Your task to perform on an android device: Go to eBay Image 0: 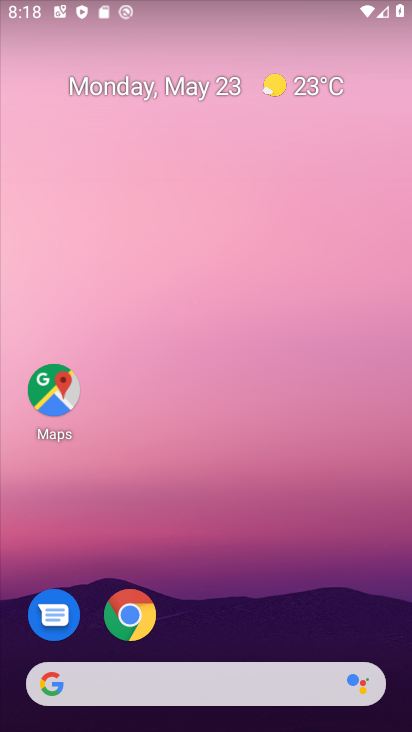
Step 0: click (132, 615)
Your task to perform on an android device: Go to eBay Image 1: 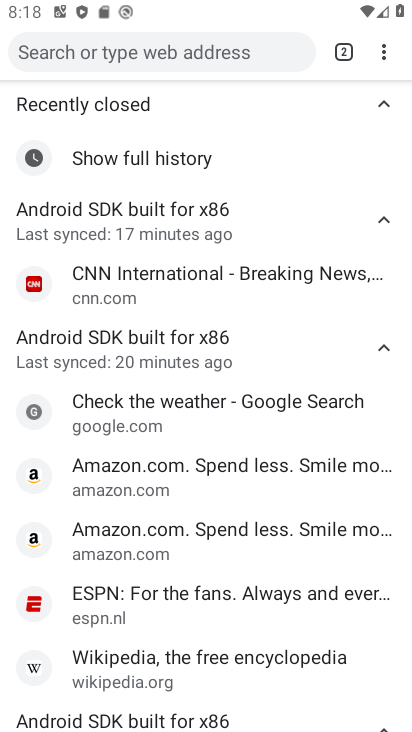
Step 1: click (222, 53)
Your task to perform on an android device: Go to eBay Image 2: 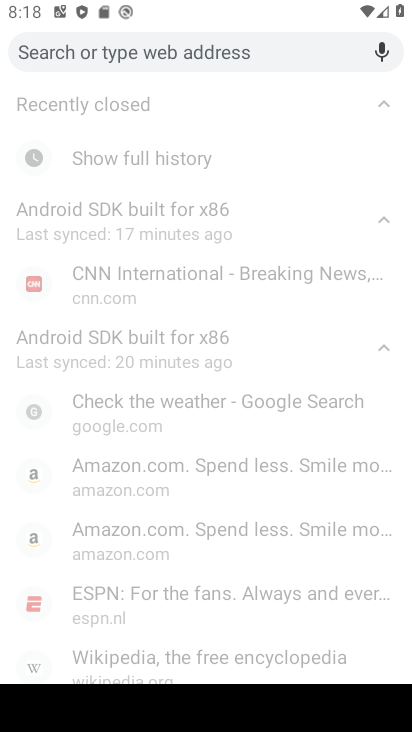
Step 2: type "eBay"
Your task to perform on an android device: Go to eBay Image 3: 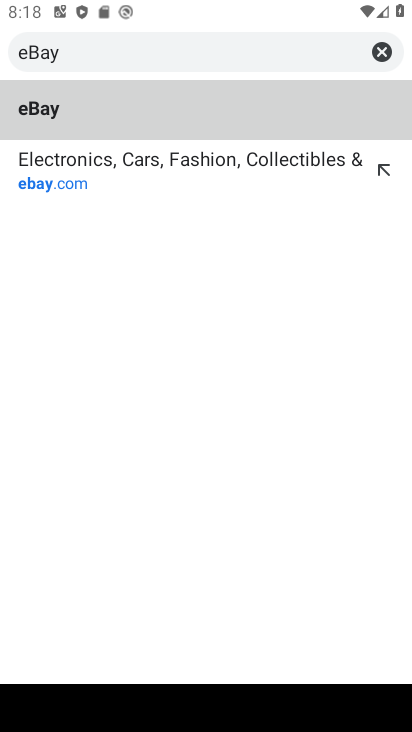
Step 3: click (49, 118)
Your task to perform on an android device: Go to eBay Image 4: 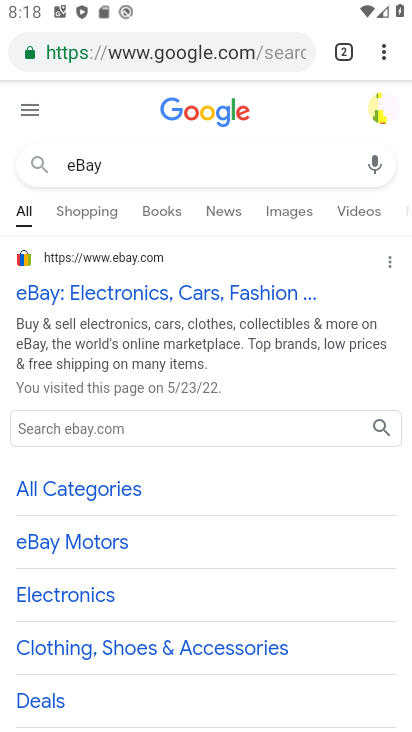
Step 4: click (140, 297)
Your task to perform on an android device: Go to eBay Image 5: 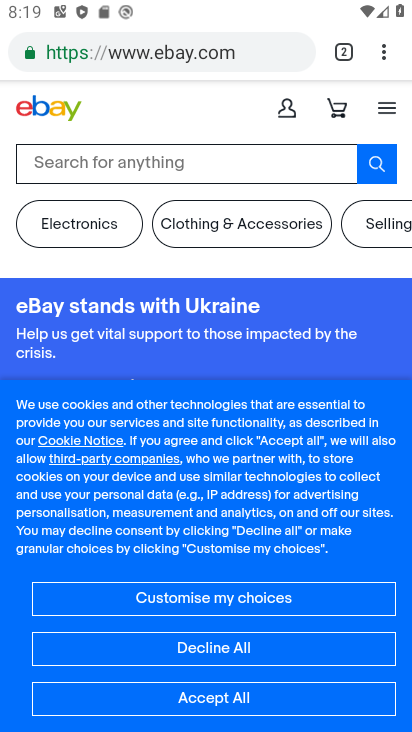
Step 5: task complete